Your task to perform on an android device: Search for "macbook pro 13 inch" on target.com, select the first entry, and add it to the cart. Image 0: 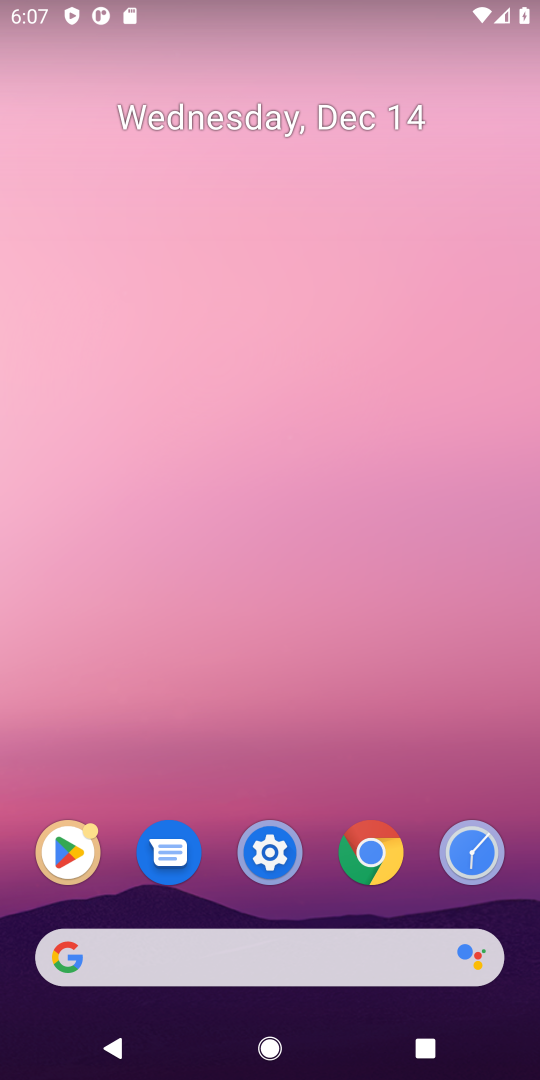
Step 0: click (373, 859)
Your task to perform on an android device: Search for "macbook pro 13 inch" on target.com, select the first entry, and add it to the cart. Image 1: 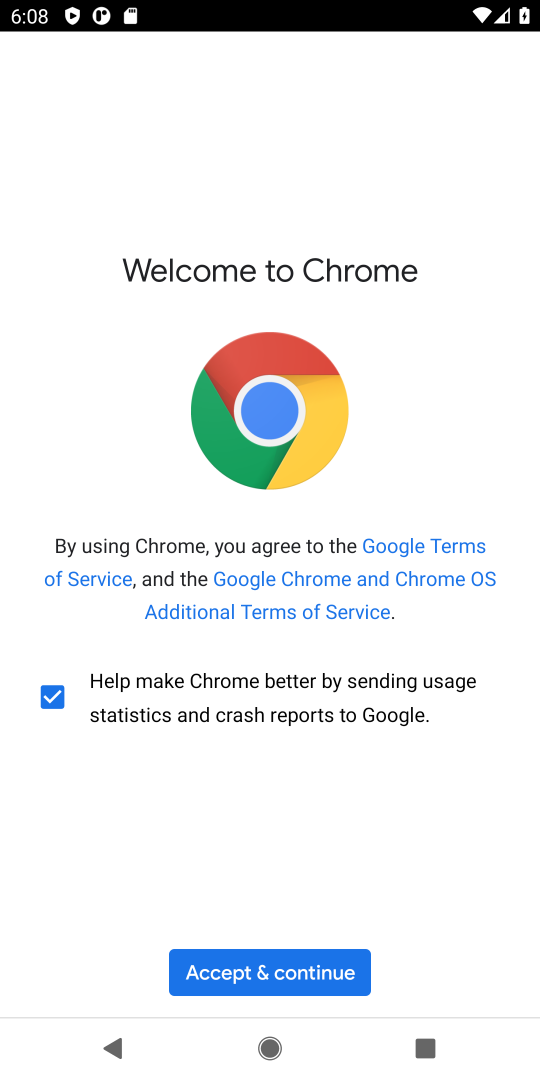
Step 1: click (299, 977)
Your task to perform on an android device: Search for "macbook pro 13 inch" on target.com, select the first entry, and add it to the cart. Image 2: 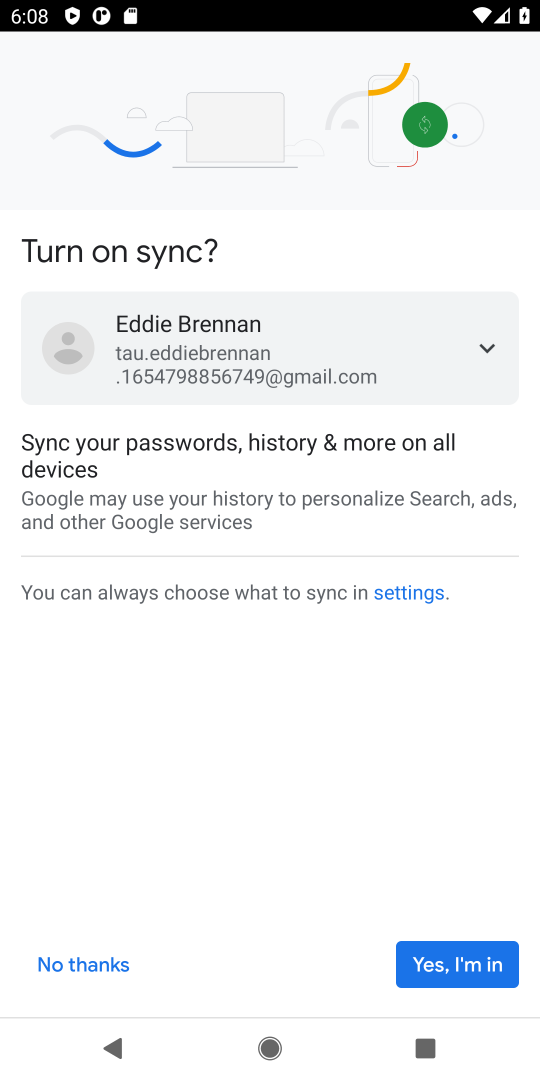
Step 2: click (474, 963)
Your task to perform on an android device: Search for "macbook pro 13 inch" on target.com, select the first entry, and add it to the cart. Image 3: 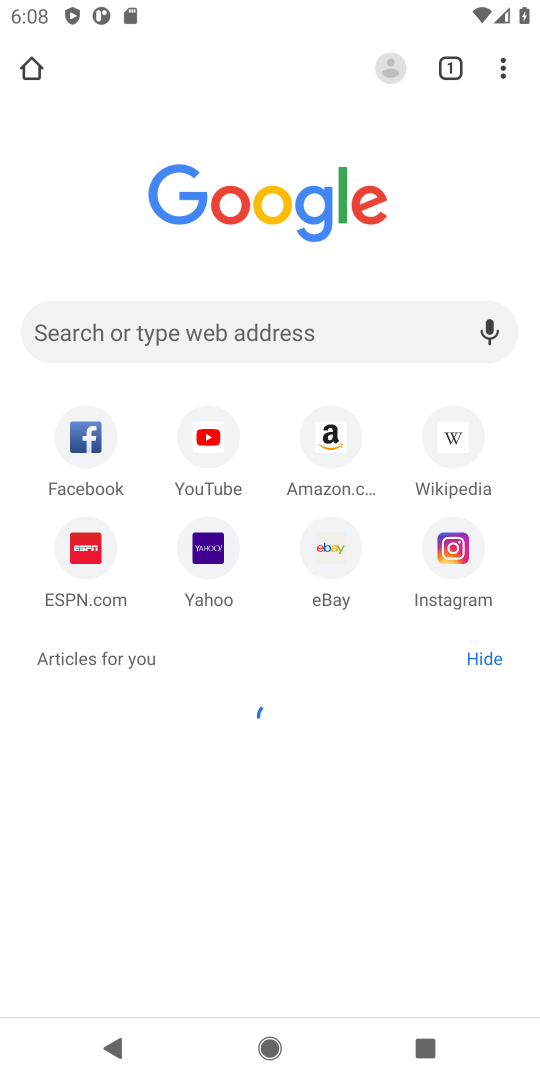
Step 3: click (313, 330)
Your task to perform on an android device: Search for "macbook pro 13 inch" on target.com, select the first entry, and add it to the cart. Image 4: 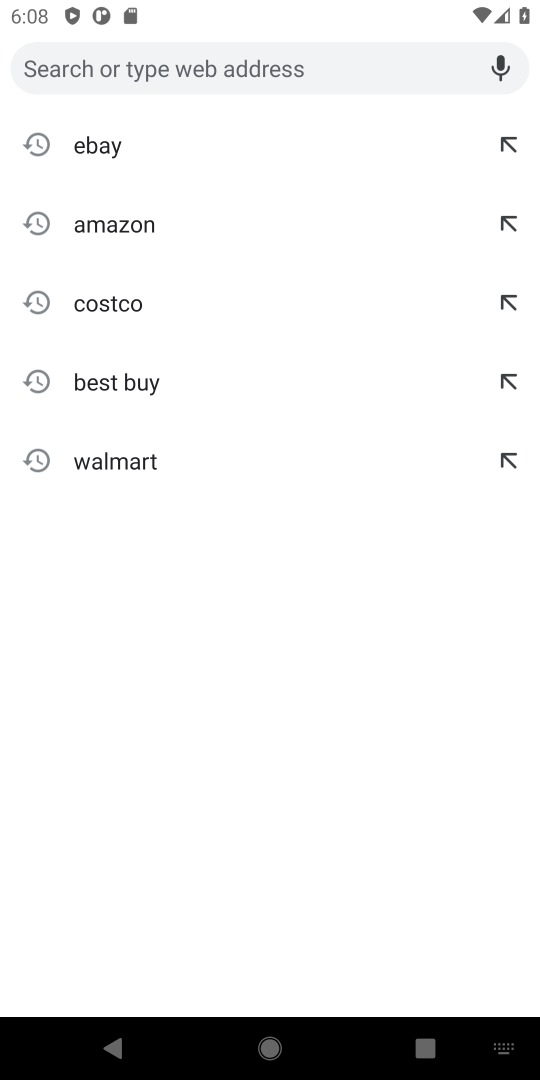
Step 4: type "target"
Your task to perform on an android device: Search for "macbook pro 13 inch" on target.com, select the first entry, and add it to the cart. Image 5: 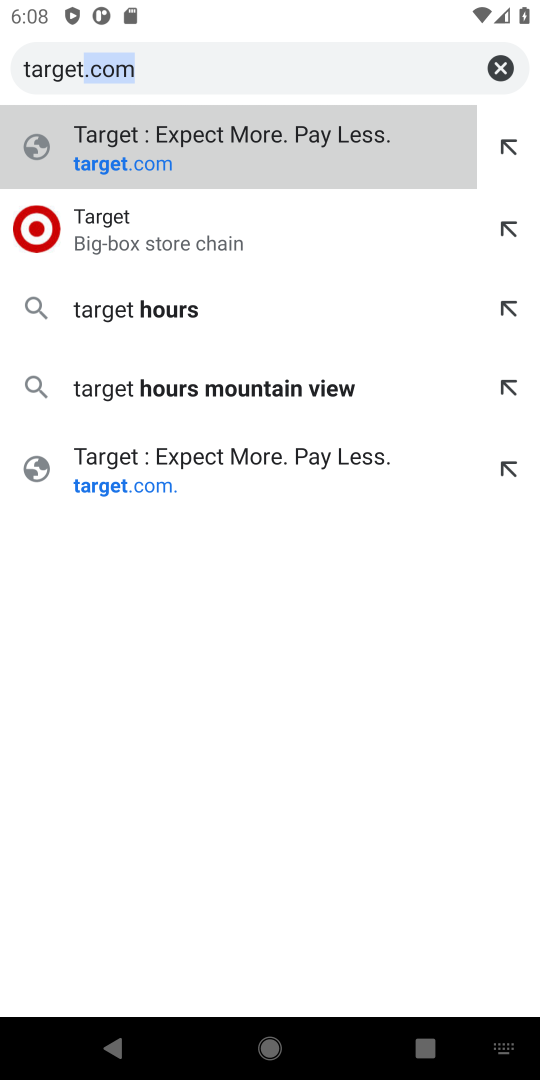
Step 5: click (105, 158)
Your task to perform on an android device: Search for "macbook pro 13 inch" on target.com, select the first entry, and add it to the cart. Image 6: 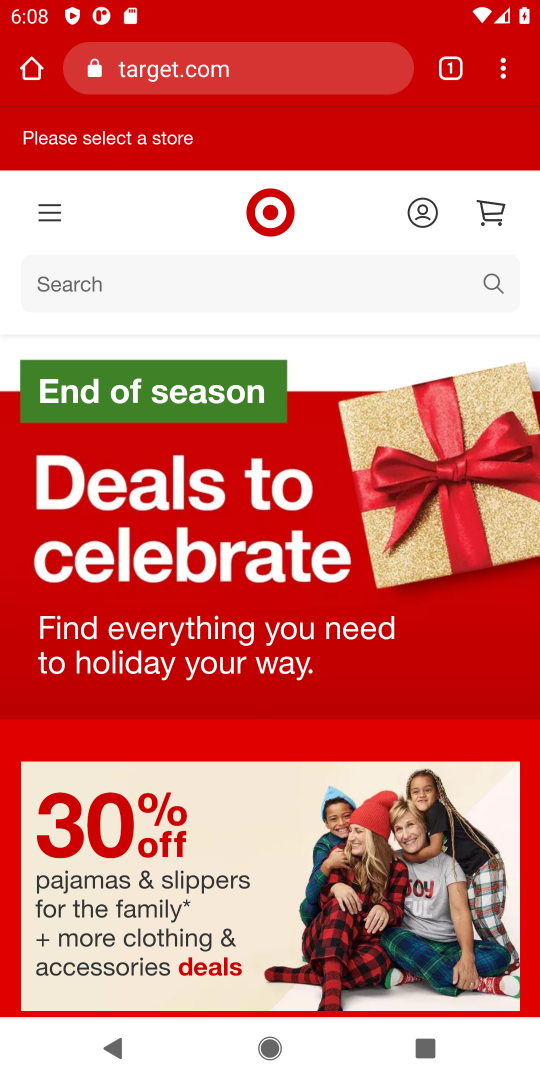
Step 6: click (132, 293)
Your task to perform on an android device: Search for "macbook pro 13 inch" on target.com, select the first entry, and add it to the cart. Image 7: 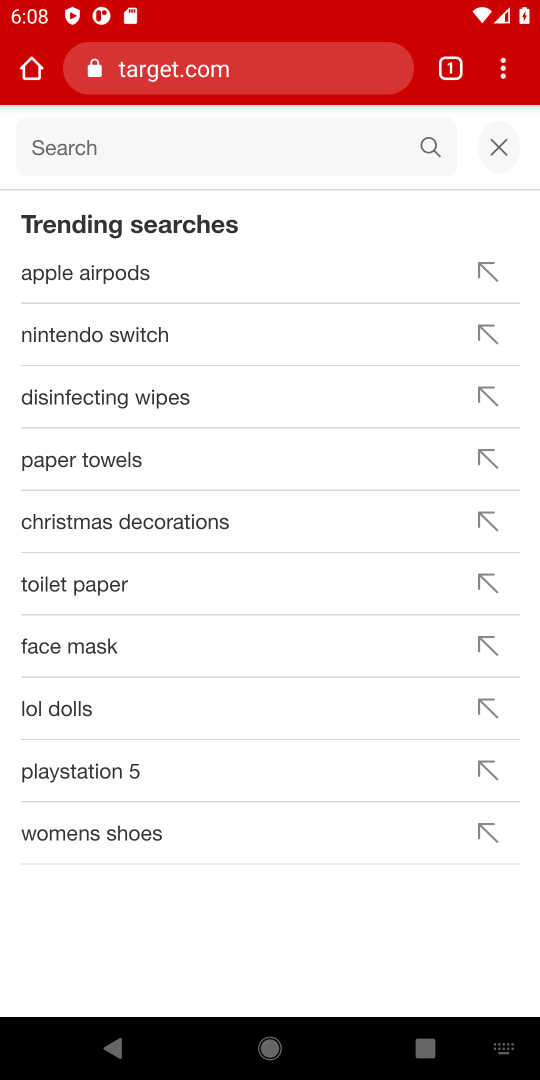
Step 7: type "macbook pro 13 inch"
Your task to perform on an android device: Search for "macbook pro 13 inch" on target.com, select the first entry, and add it to the cart. Image 8: 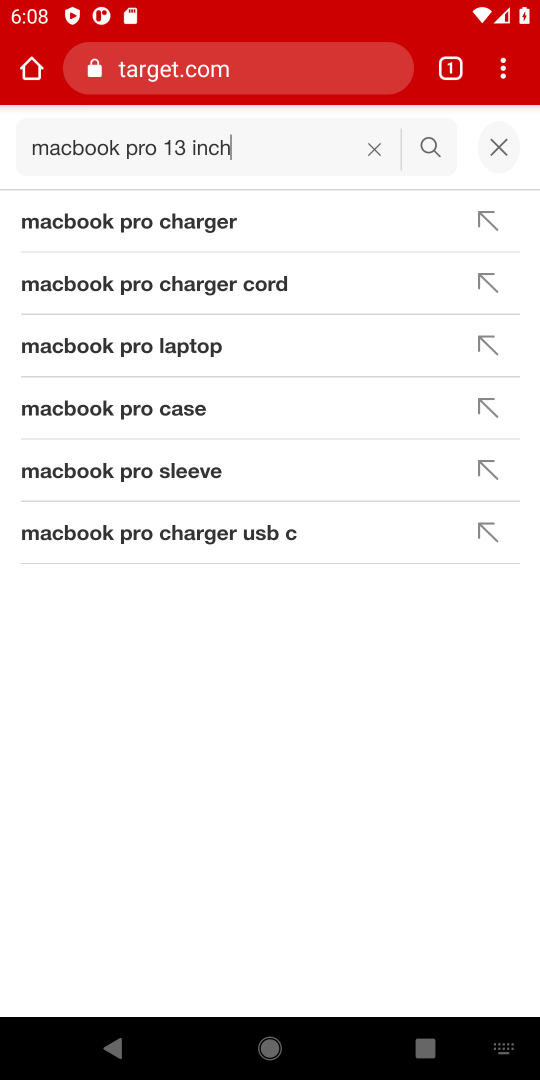
Step 8: click (426, 145)
Your task to perform on an android device: Search for "macbook pro 13 inch" on target.com, select the first entry, and add it to the cart. Image 9: 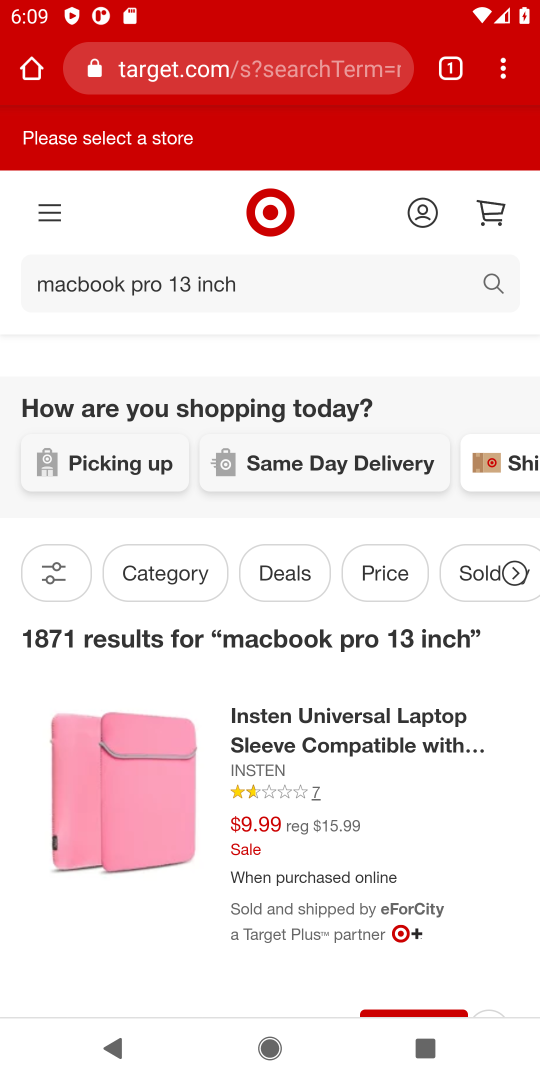
Step 9: task complete